Your task to perform on an android device: Show me the alarms in the clock app Image 0: 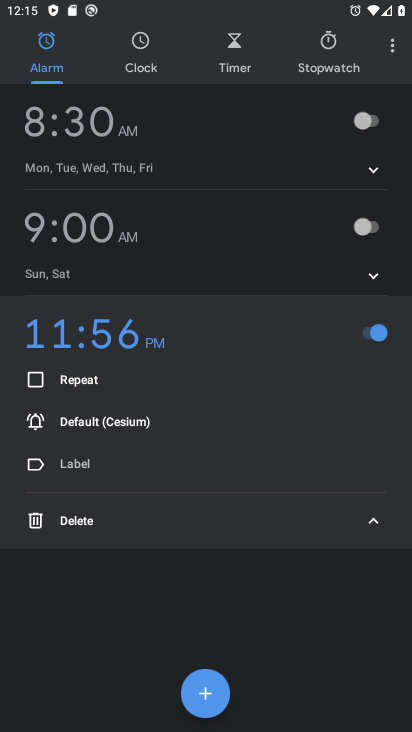
Step 0: press home button
Your task to perform on an android device: Show me the alarms in the clock app Image 1: 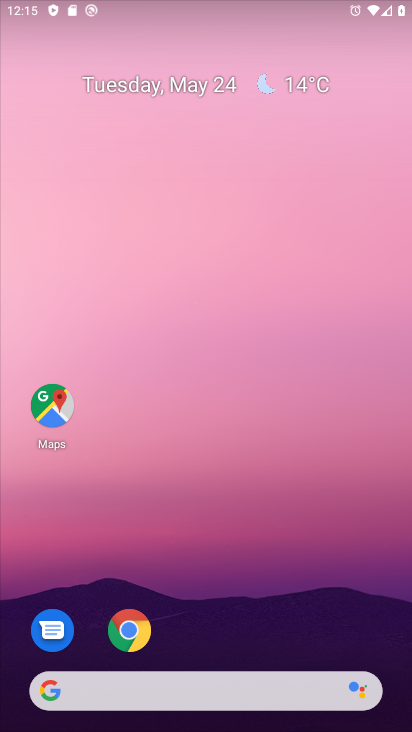
Step 1: drag from (368, 577) to (312, 218)
Your task to perform on an android device: Show me the alarms in the clock app Image 2: 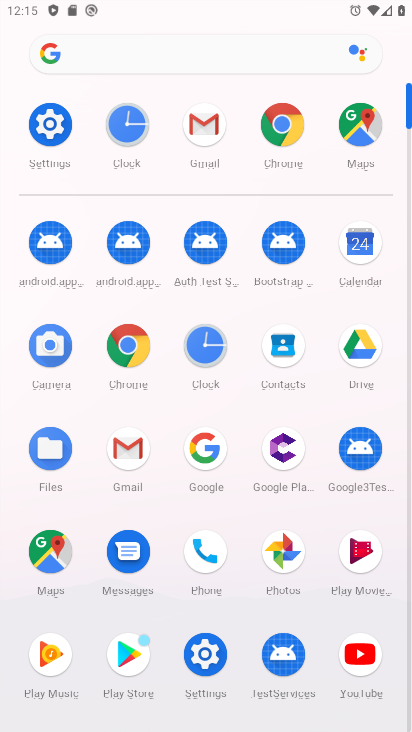
Step 2: click (219, 348)
Your task to perform on an android device: Show me the alarms in the clock app Image 3: 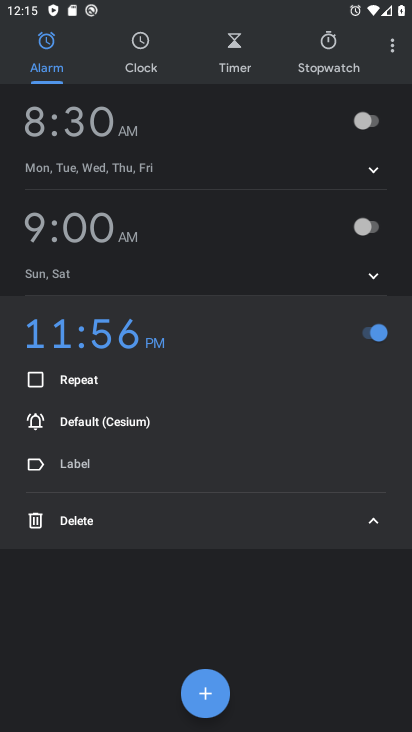
Step 3: task complete